Your task to perform on an android device: Open calendar and show me the second week of next month Image 0: 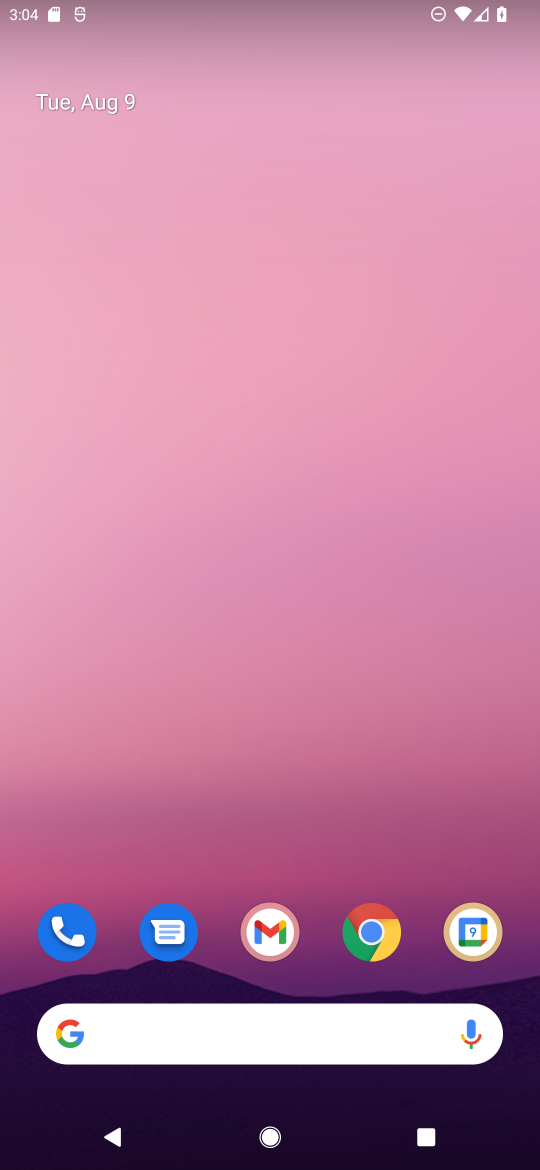
Step 0: click (478, 938)
Your task to perform on an android device: Open calendar and show me the second week of next month Image 1: 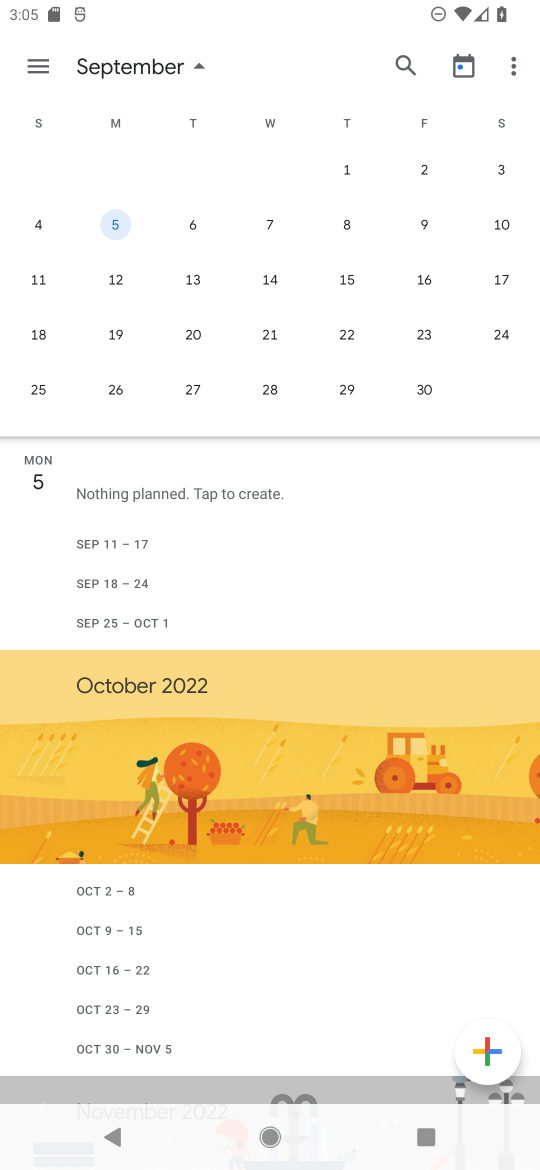
Step 1: task complete